Your task to perform on an android device: turn pop-ups on in chrome Image 0: 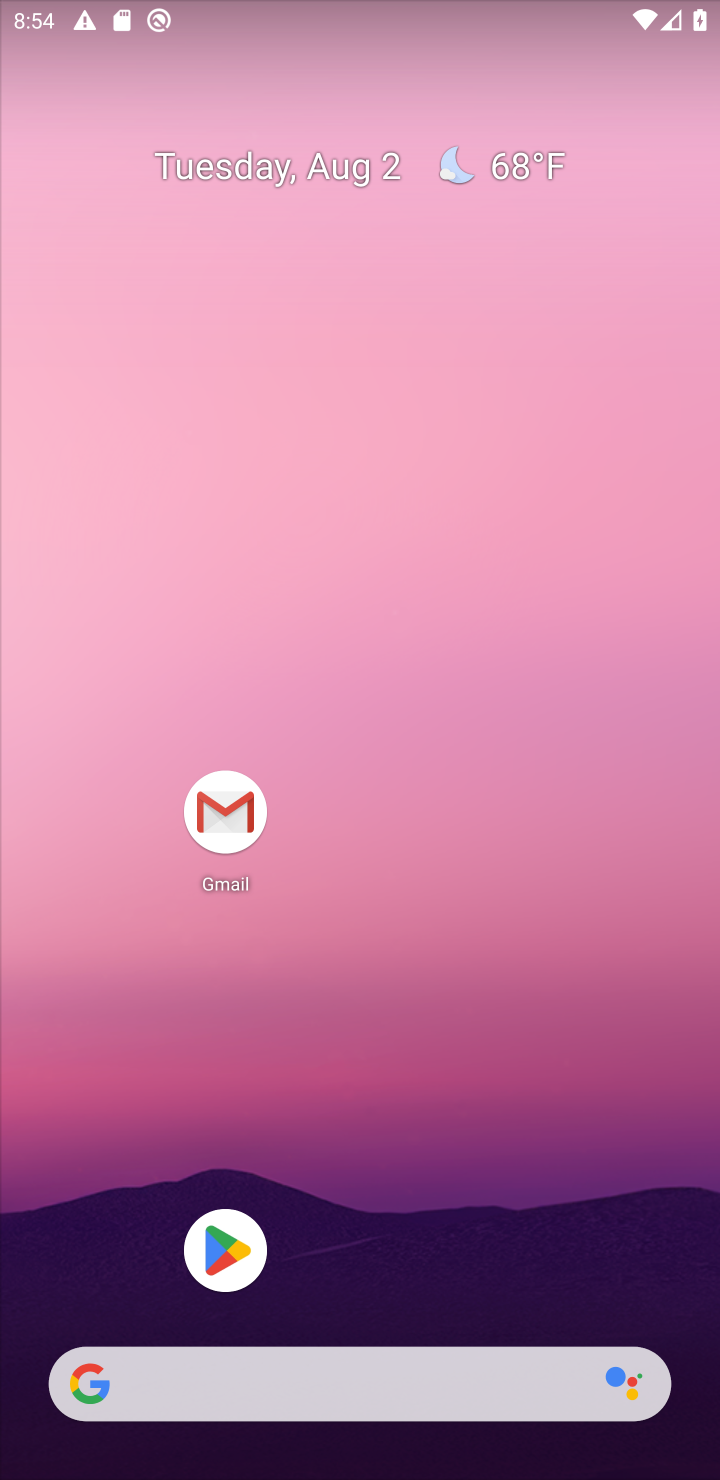
Step 0: drag from (473, 1170) to (476, 503)
Your task to perform on an android device: turn pop-ups on in chrome Image 1: 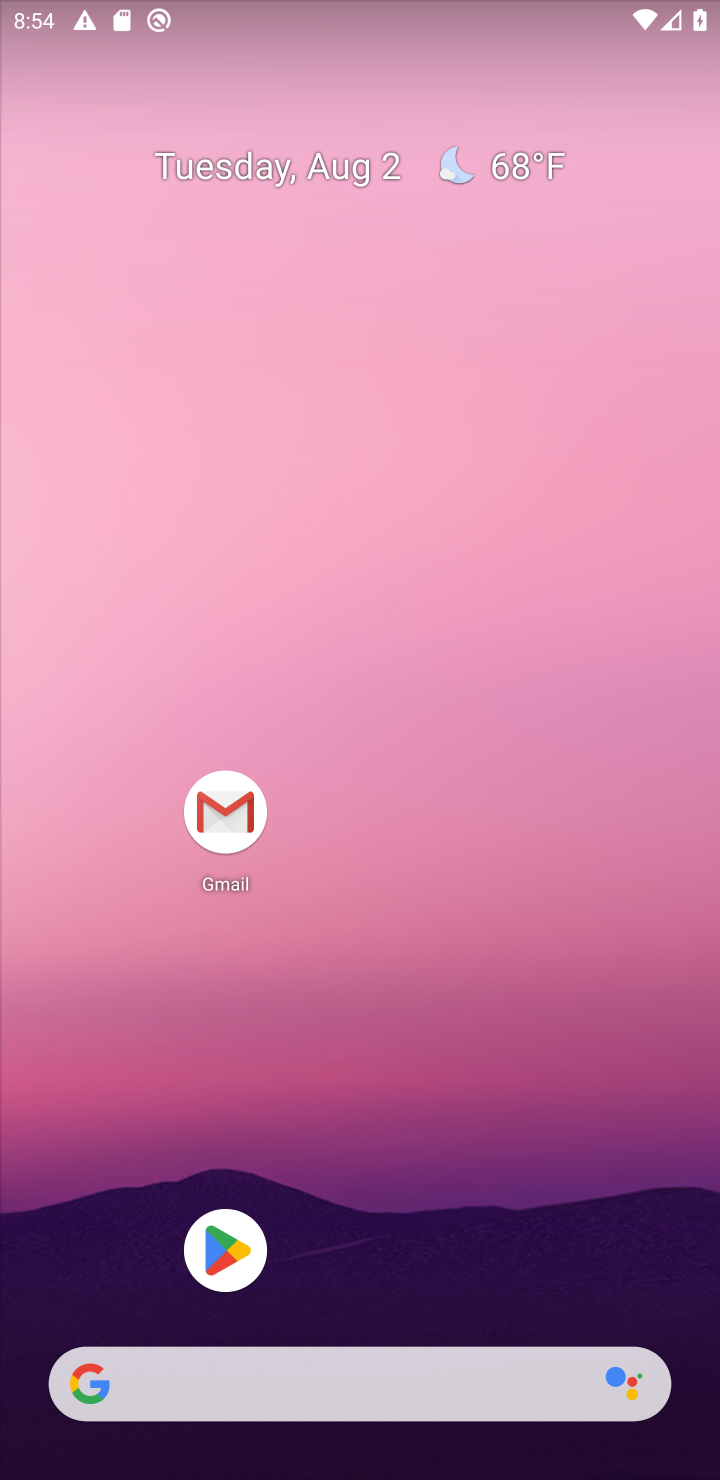
Step 1: click (420, 473)
Your task to perform on an android device: turn pop-ups on in chrome Image 2: 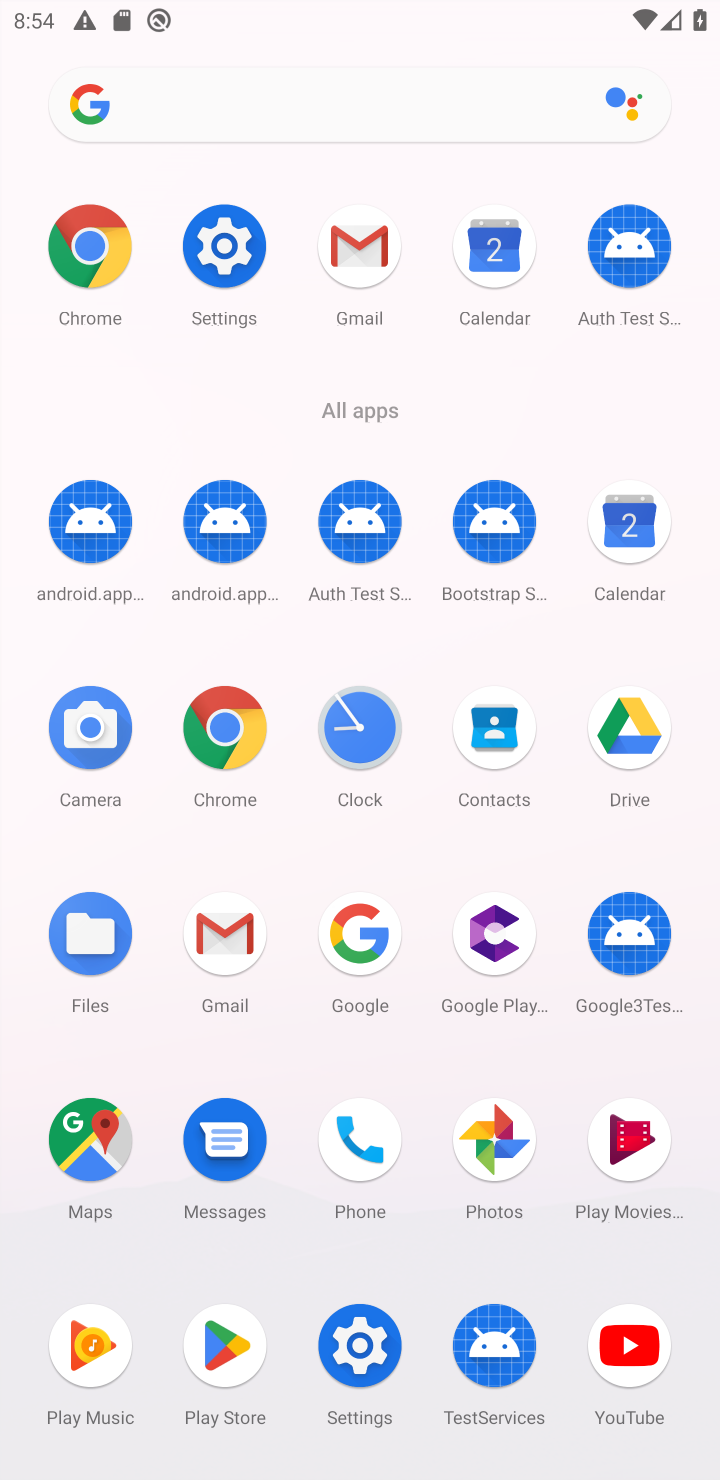
Step 2: click (89, 236)
Your task to perform on an android device: turn pop-ups on in chrome Image 3: 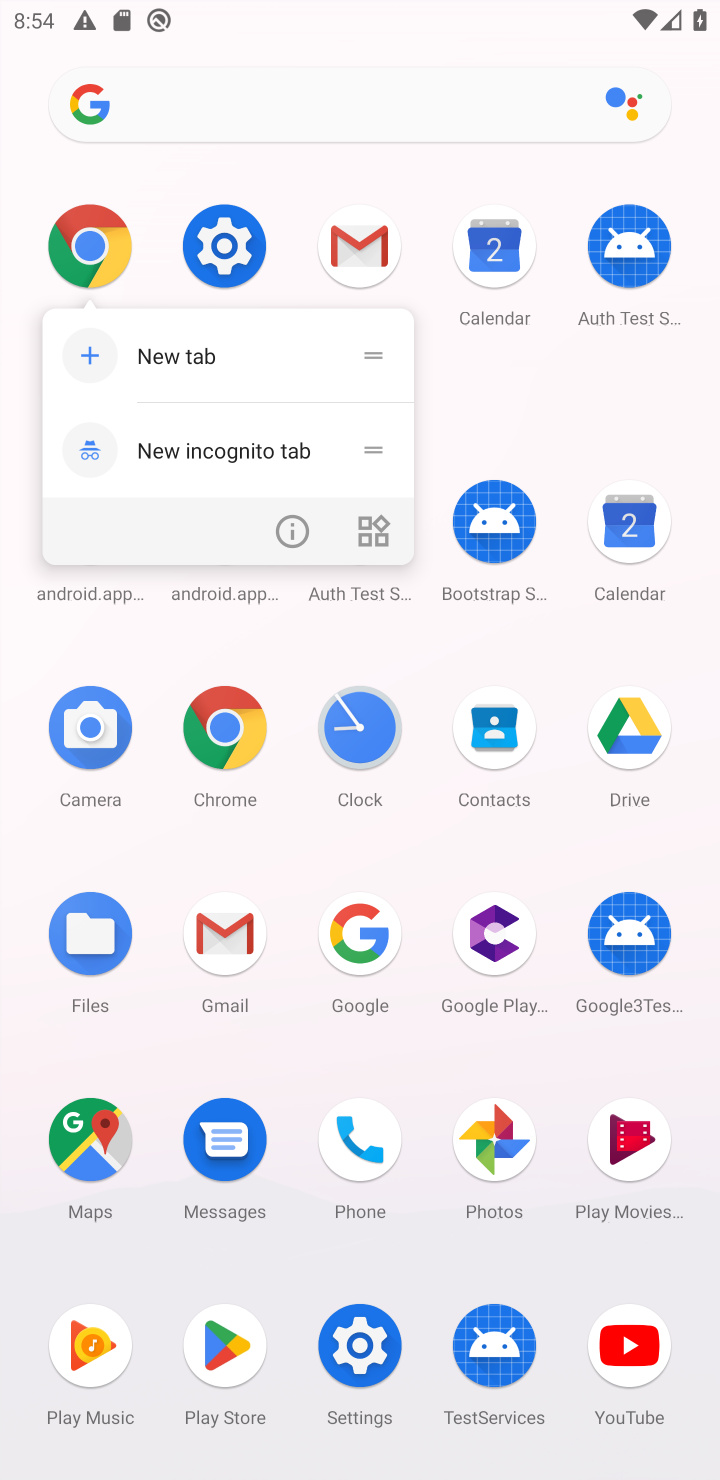
Step 3: click (113, 239)
Your task to perform on an android device: turn pop-ups on in chrome Image 4: 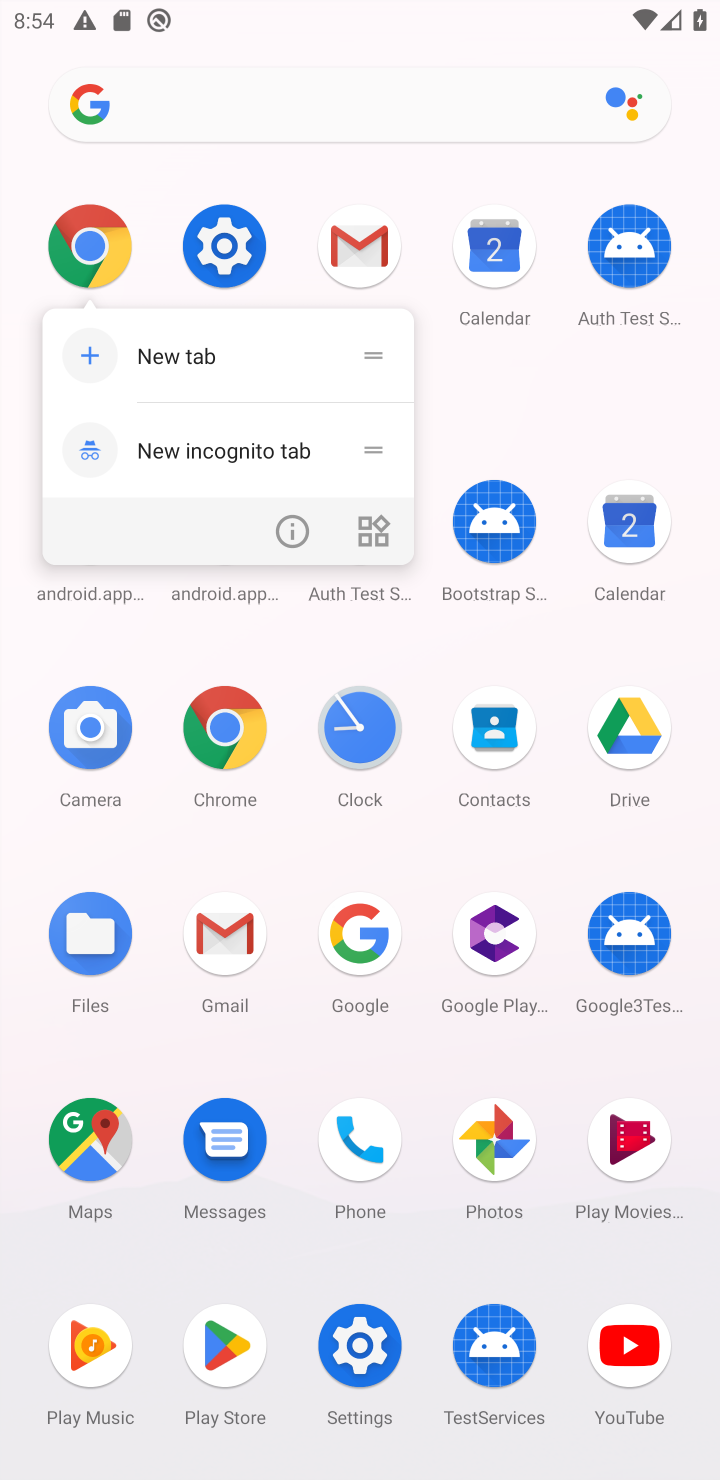
Step 4: click (95, 256)
Your task to perform on an android device: turn pop-ups on in chrome Image 5: 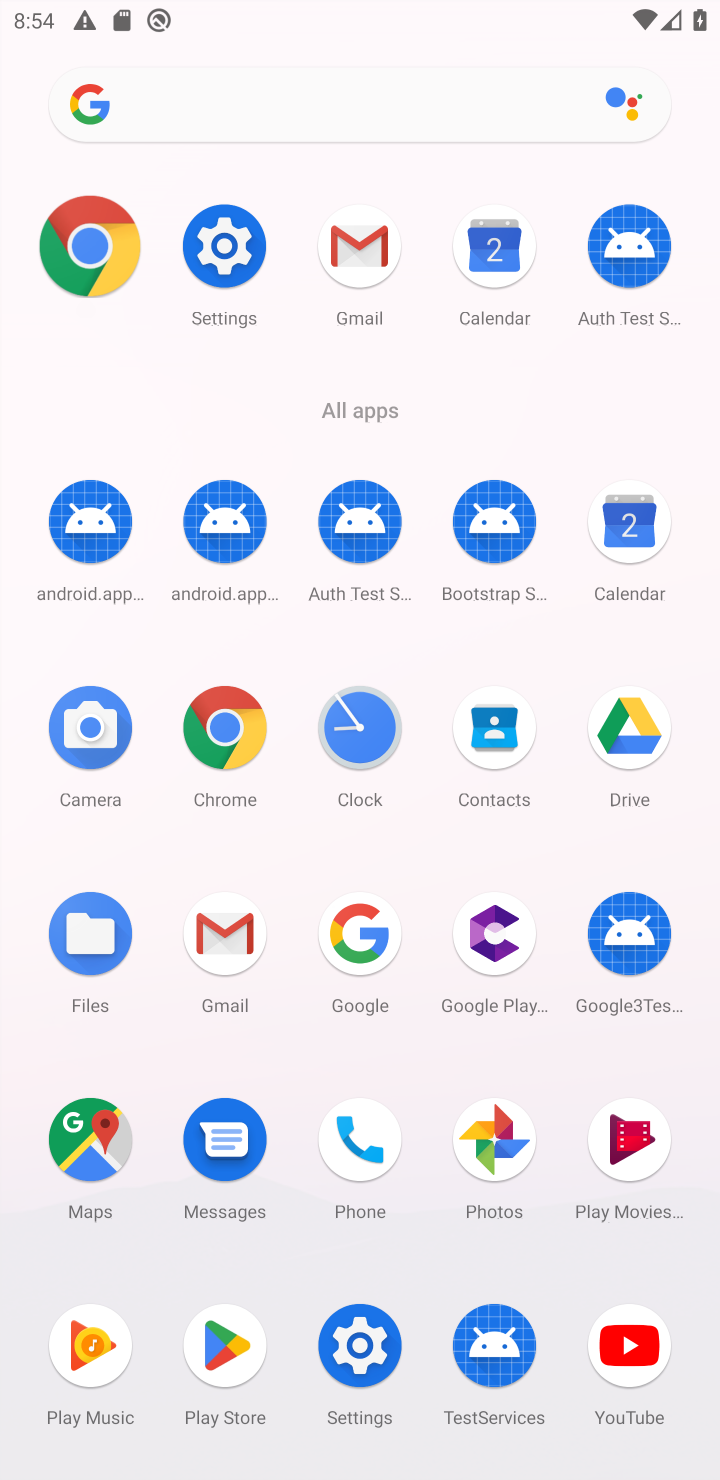
Step 5: click (81, 227)
Your task to perform on an android device: turn pop-ups on in chrome Image 6: 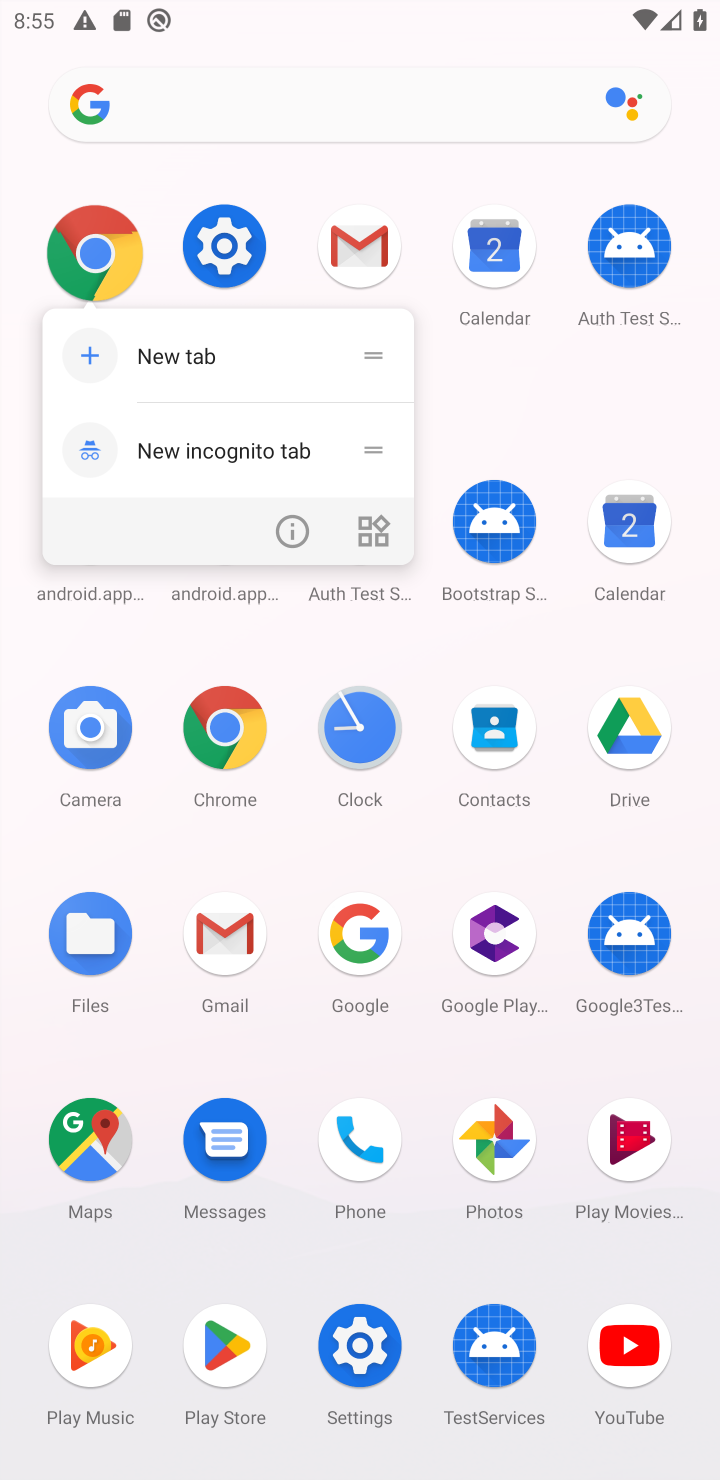
Step 6: click (180, 359)
Your task to perform on an android device: turn pop-ups on in chrome Image 7: 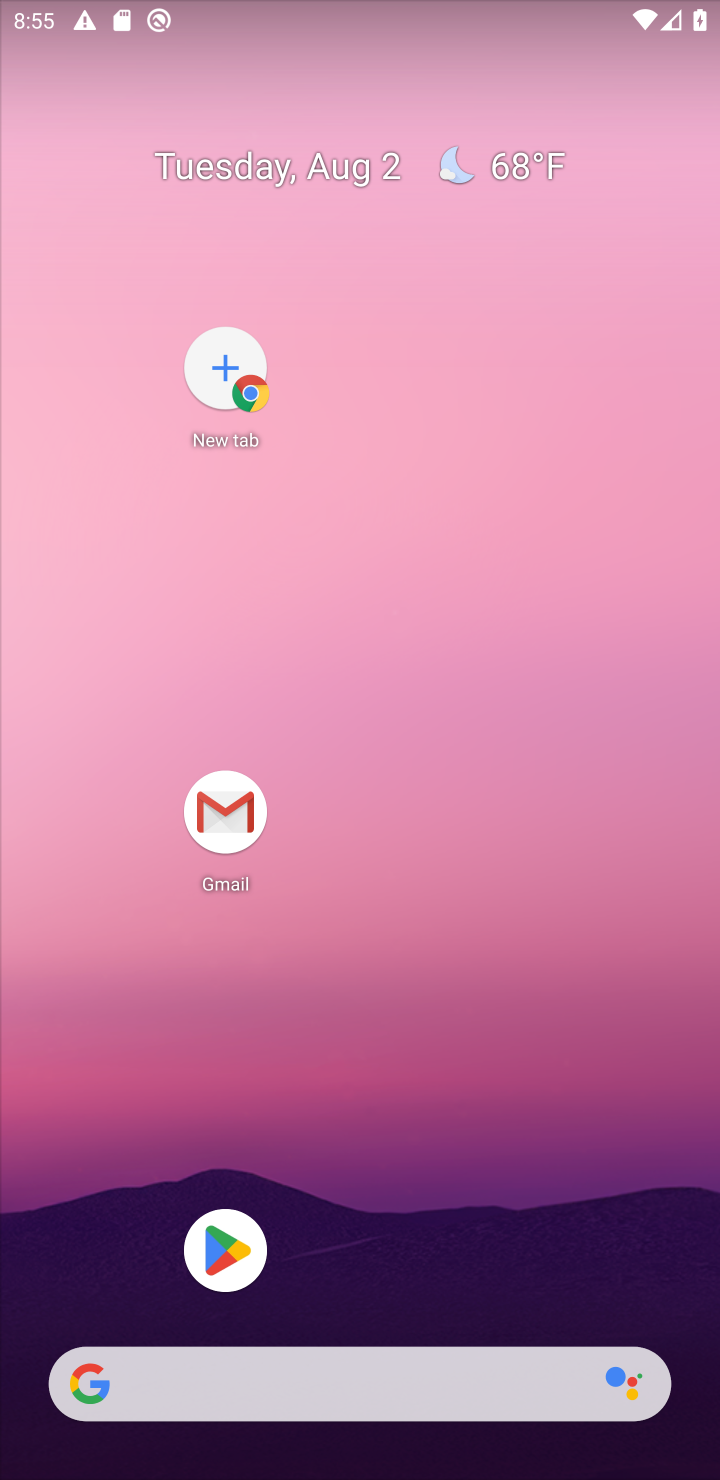
Step 7: click (250, 396)
Your task to perform on an android device: turn pop-ups on in chrome Image 8: 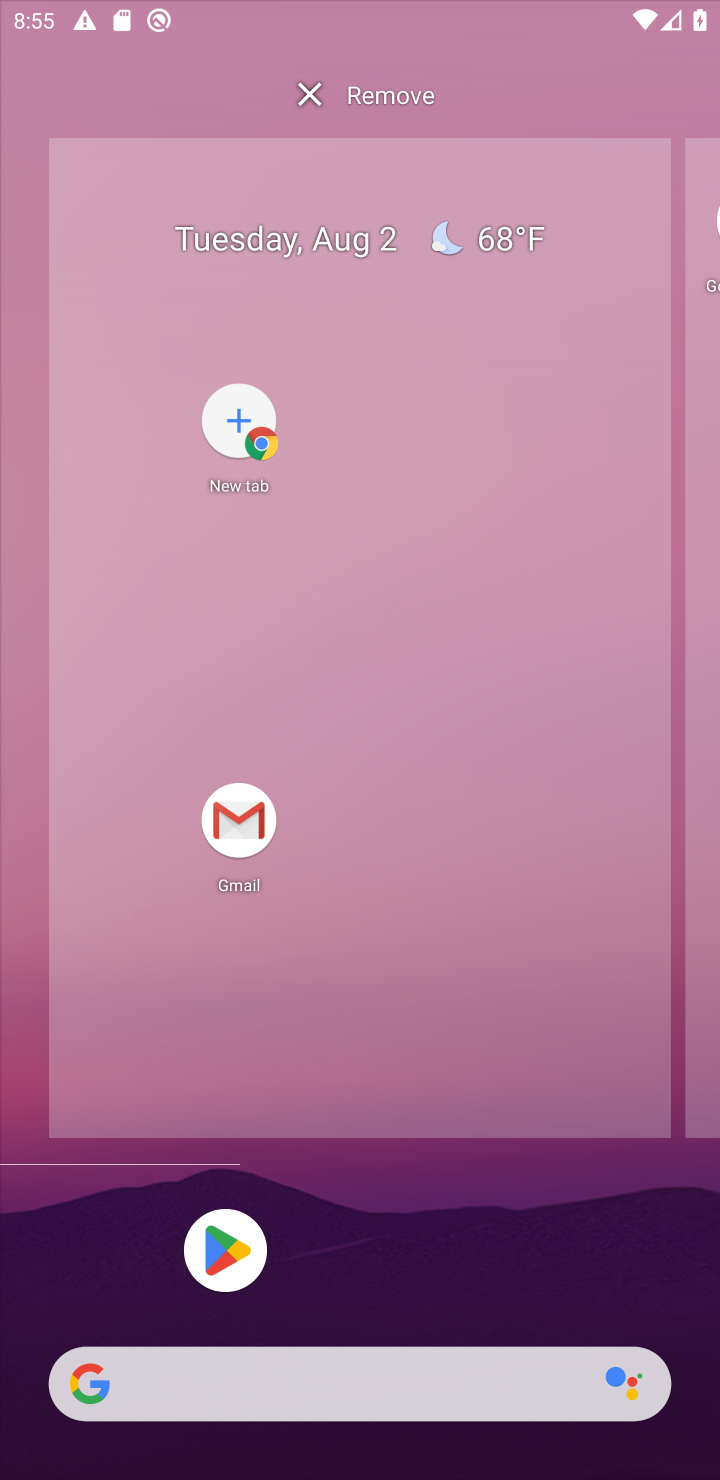
Step 8: click (256, 391)
Your task to perform on an android device: turn pop-ups on in chrome Image 9: 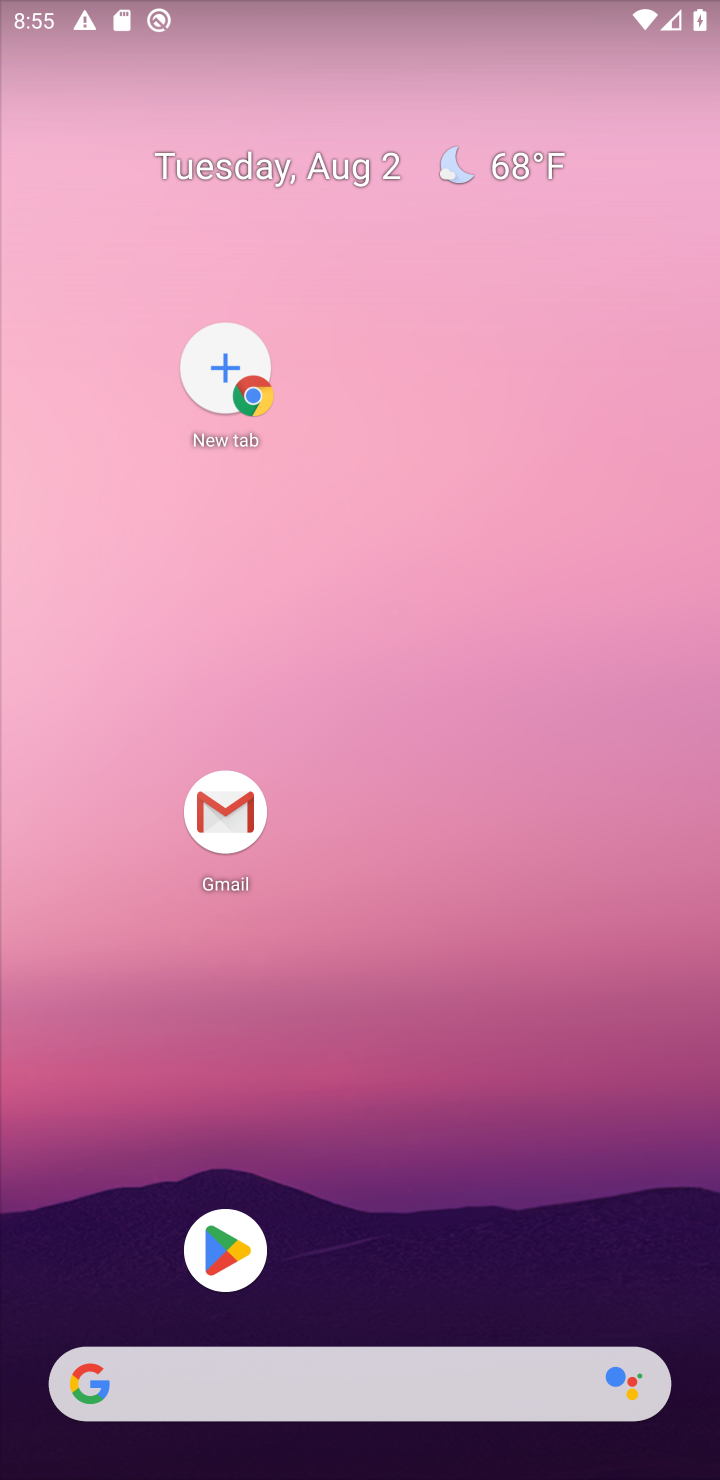
Step 9: drag from (502, 1261) to (374, 280)
Your task to perform on an android device: turn pop-ups on in chrome Image 10: 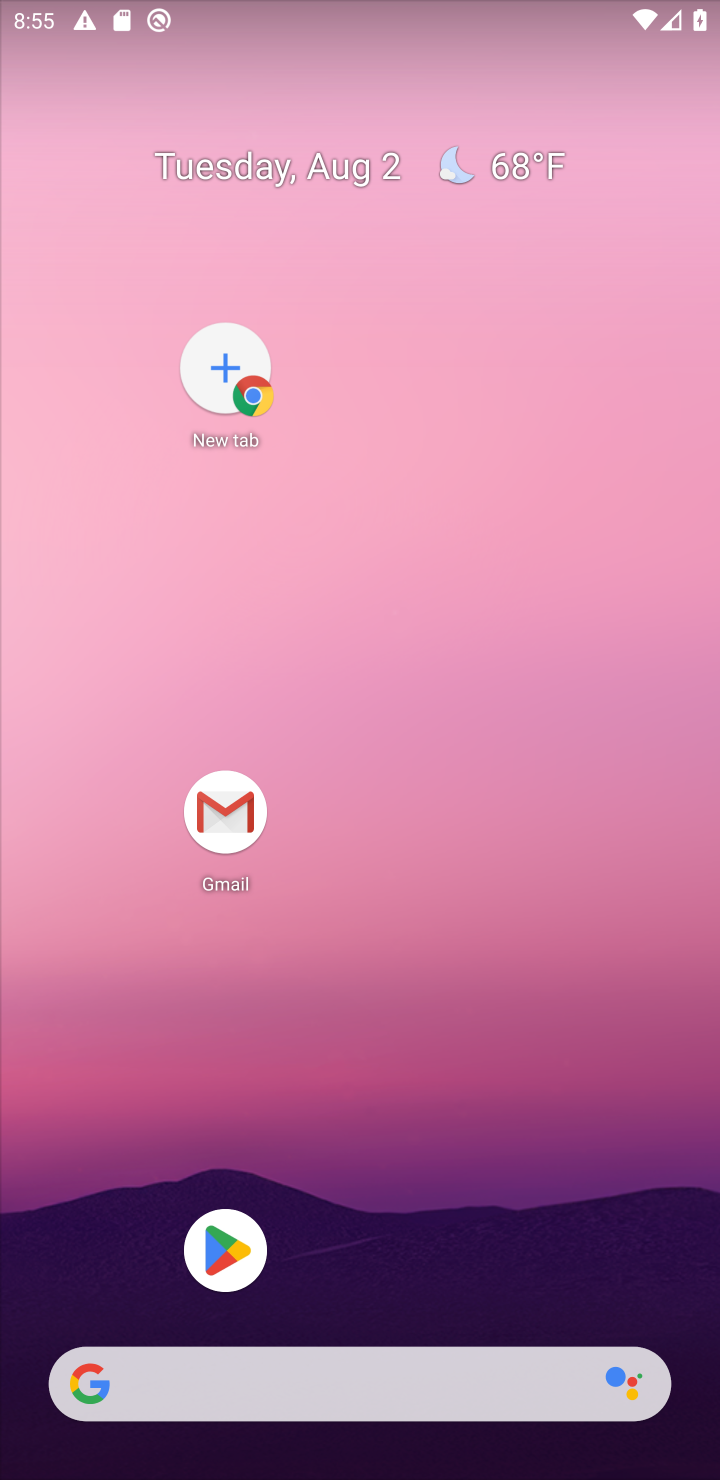
Step 10: click (348, 238)
Your task to perform on an android device: turn pop-ups on in chrome Image 11: 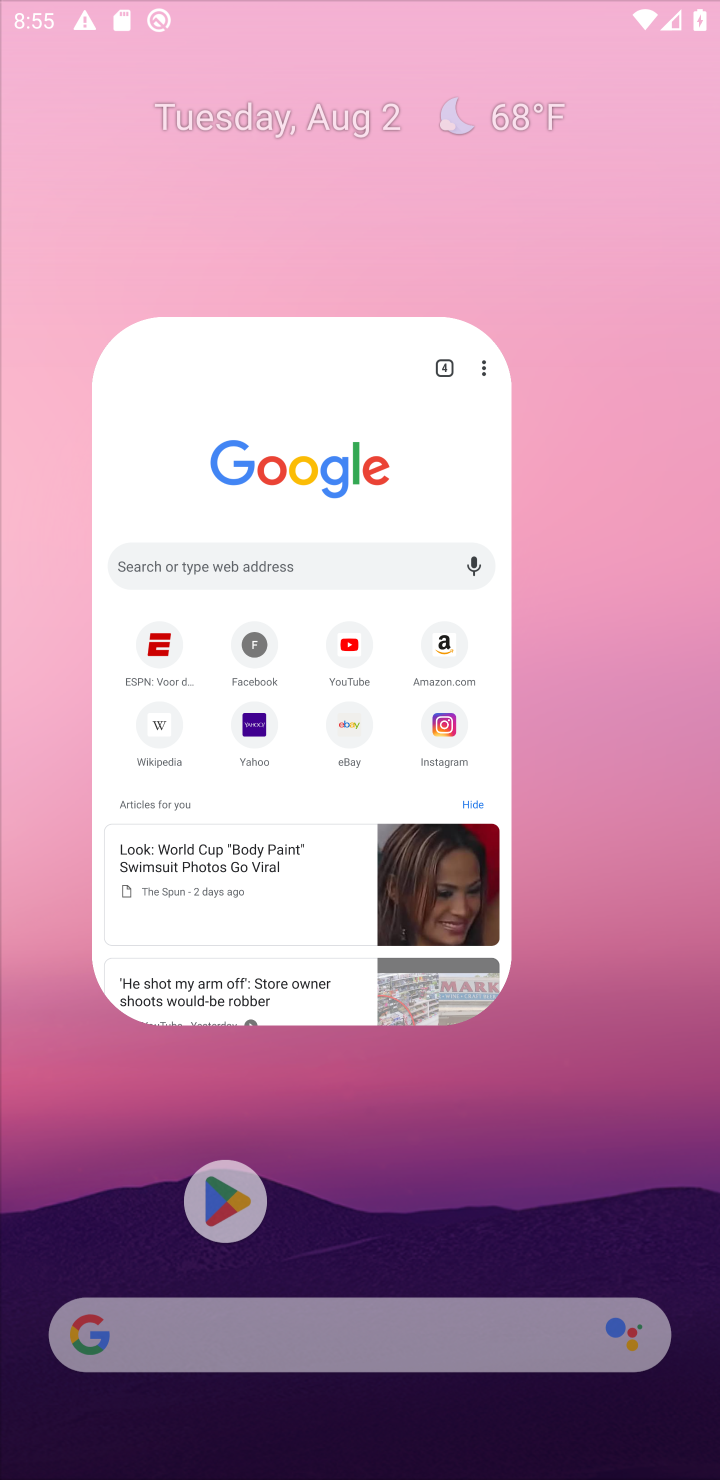
Step 11: click (436, 328)
Your task to perform on an android device: turn pop-ups on in chrome Image 12: 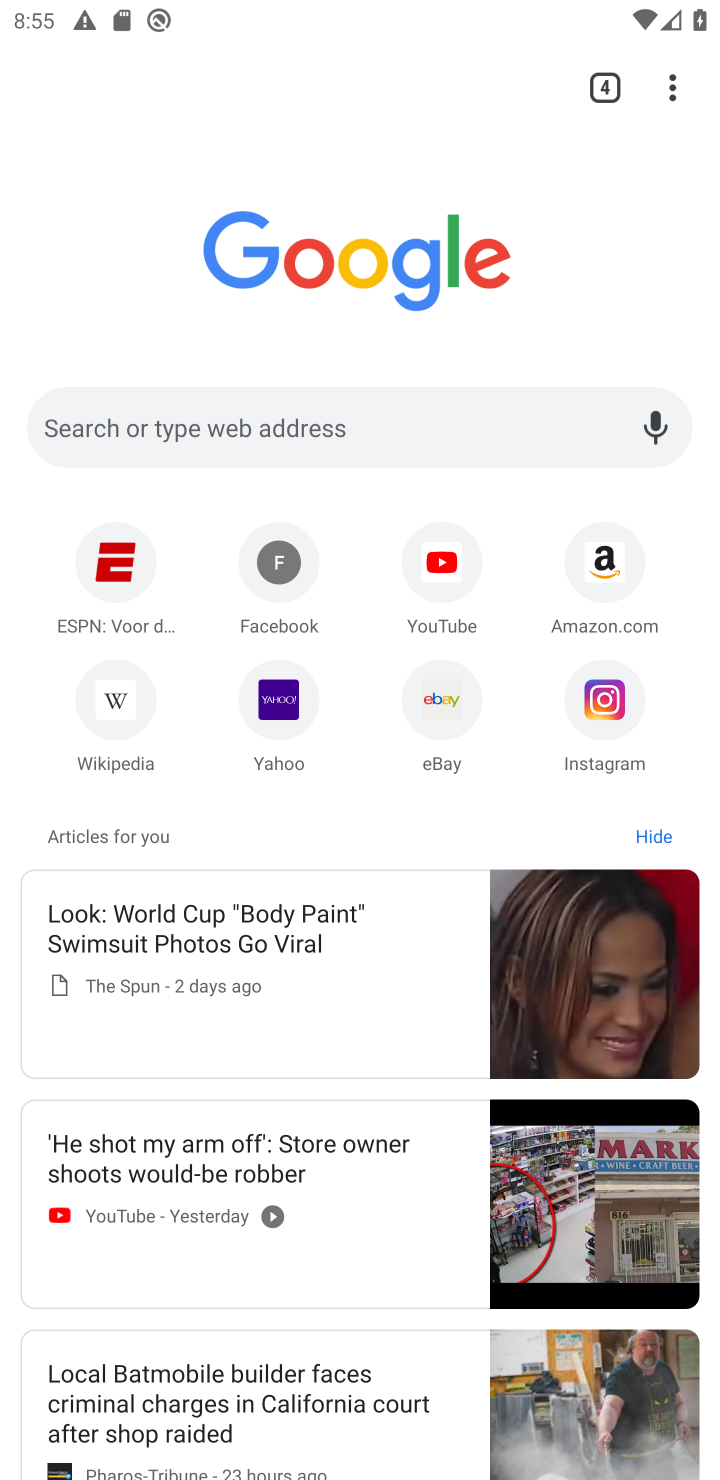
Step 12: drag from (671, 84) to (513, 759)
Your task to perform on an android device: turn pop-ups on in chrome Image 13: 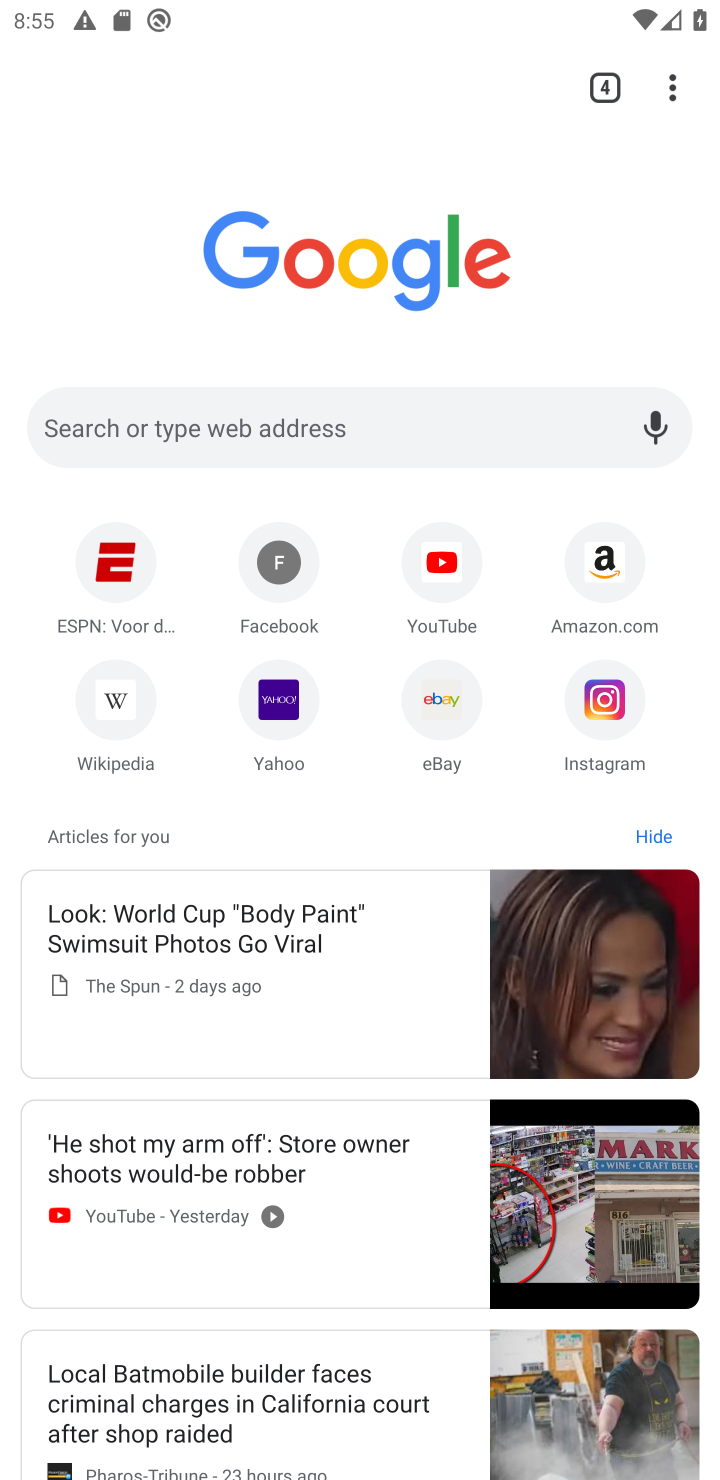
Step 13: drag from (666, 81) to (332, 837)
Your task to perform on an android device: turn pop-ups on in chrome Image 14: 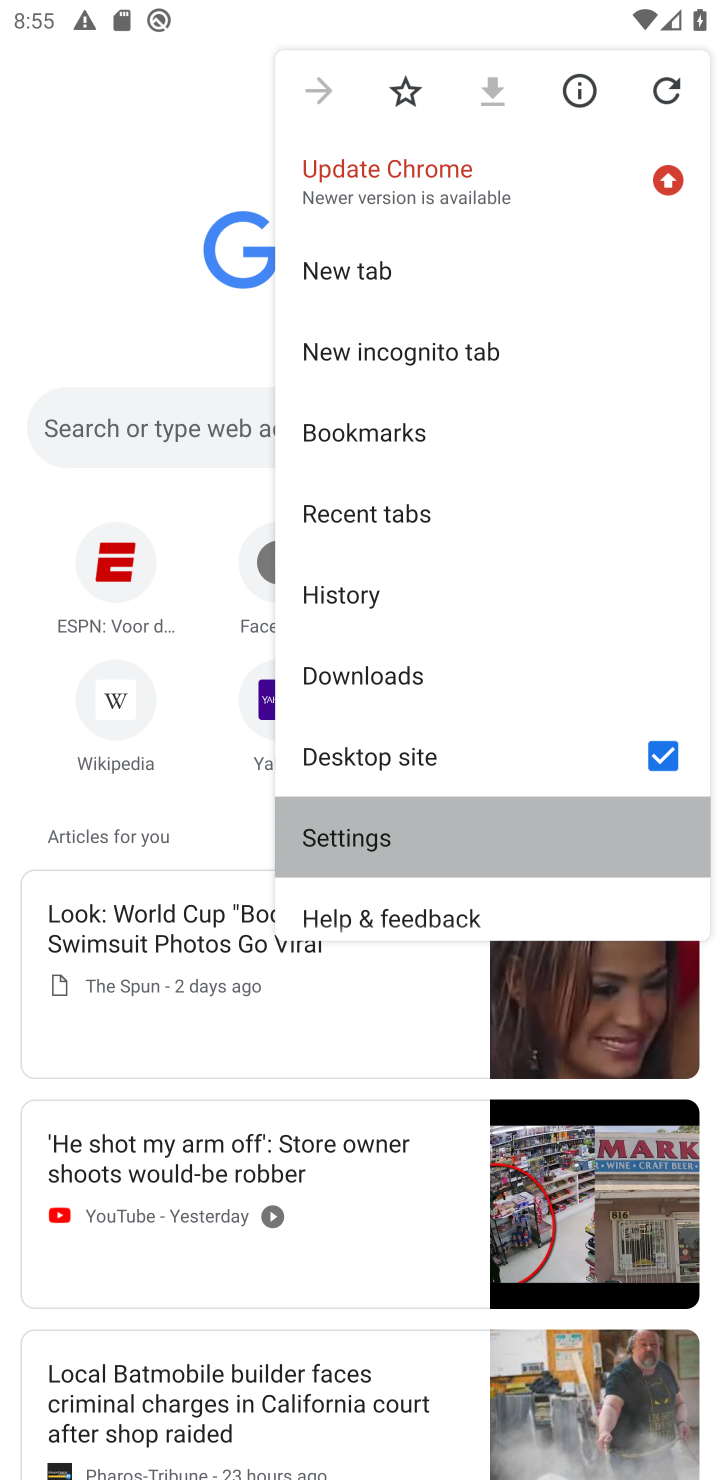
Step 14: click (331, 835)
Your task to perform on an android device: turn pop-ups on in chrome Image 15: 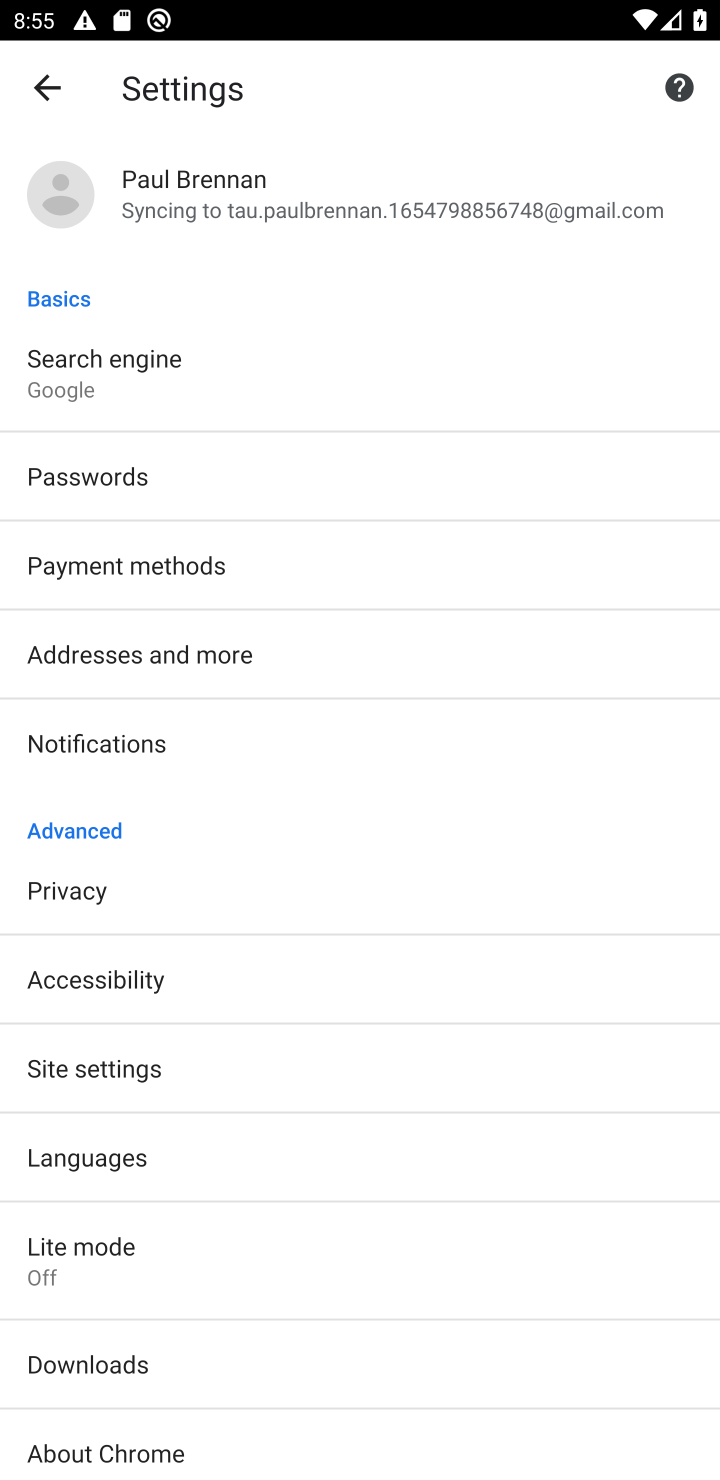
Step 15: click (92, 1070)
Your task to perform on an android device: turn pop-ups on in chrome Image 16: 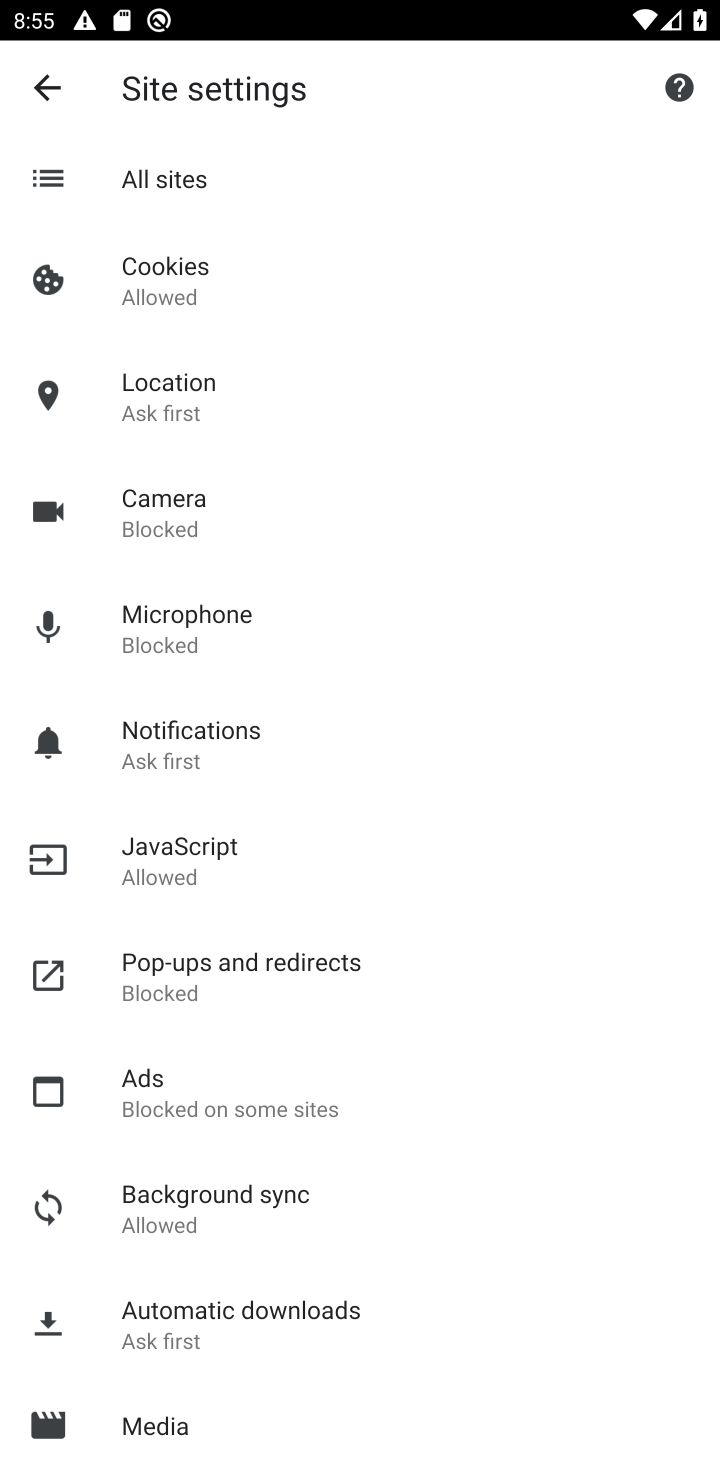
Step 16: click (171, 975)
Your task to perform on an android device: turn pop-ups on in chrome Image 17: 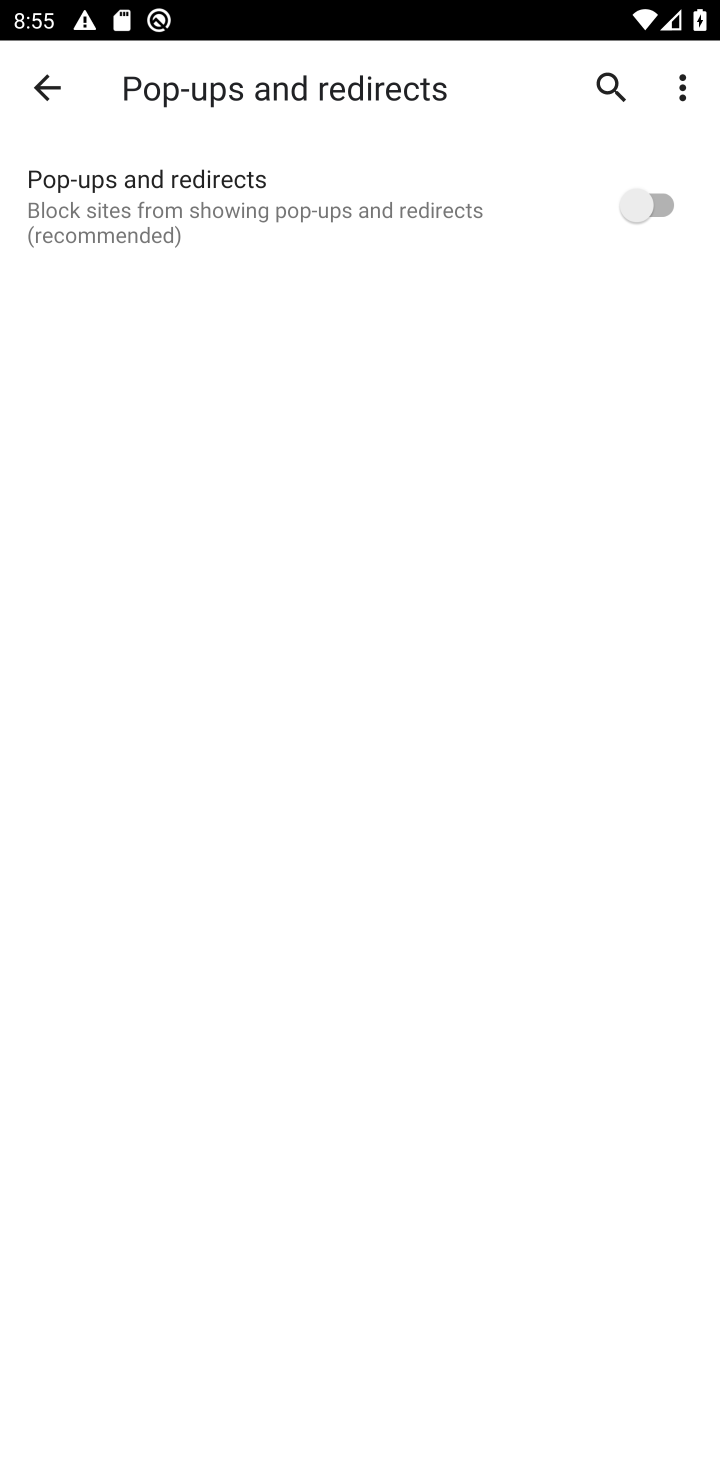
Step 17: click (645, 189)
Your task to perform on an android device: turn pop-ups on in chrome Image 18: 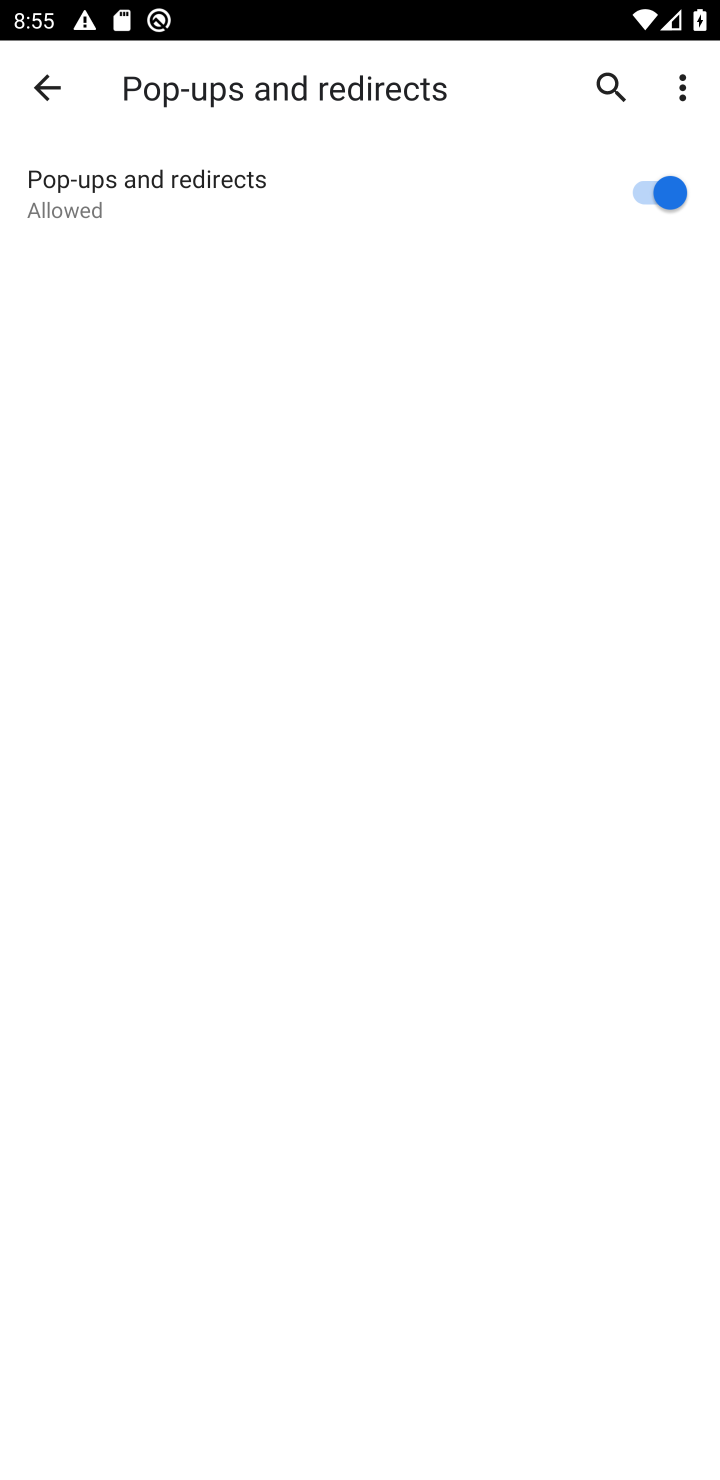
Step 18: task complete